Your task to perform on an android device: Open Youtube and go to "Your channel" Image 0: 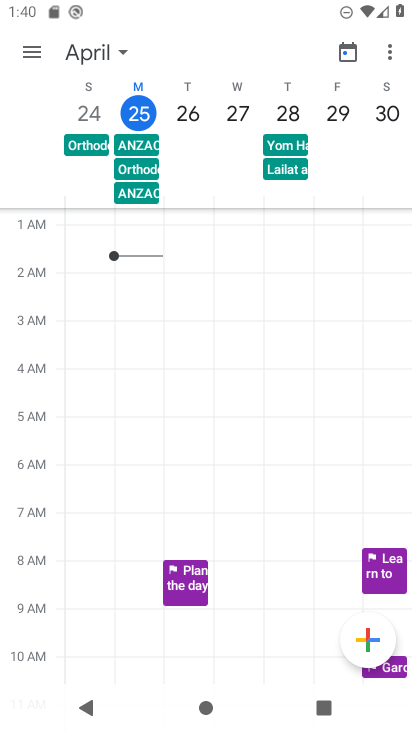
Step 0: press home button
Your task to perform on an android device: Open Youtube and go to "Your channel" Image 1: 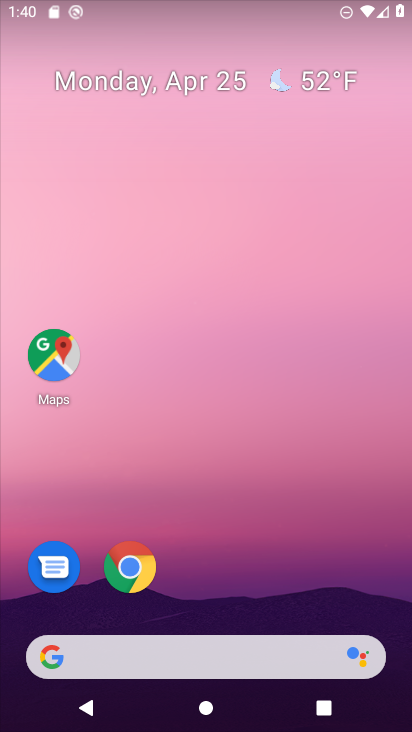
Step 1: drag from (301, 410) to (249, 0)
Your task to perform on an android device: Open Youtube and go to "Your channel" Image 2: 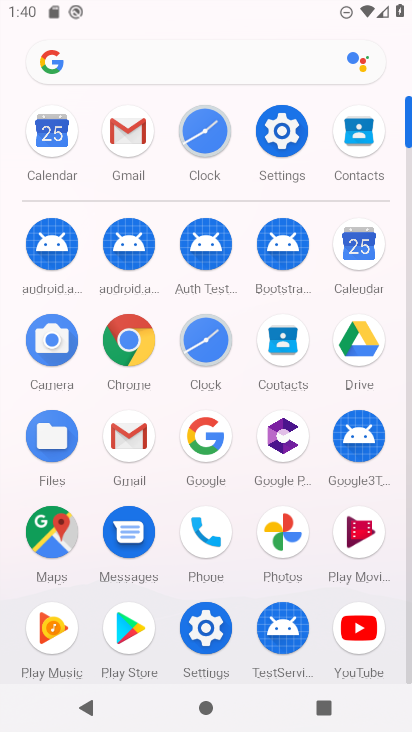
Step 2: click (360, 623)
Your task to perform on an android device: Open Youtube and go to "Your channel" Image 3: 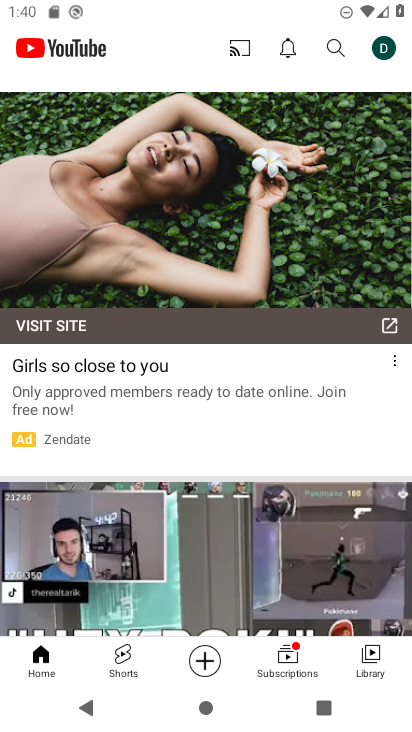
Step 3: click (382, 44)
Your task to perform on an android device: Open Youtube and go to "Your channel" Image 4: 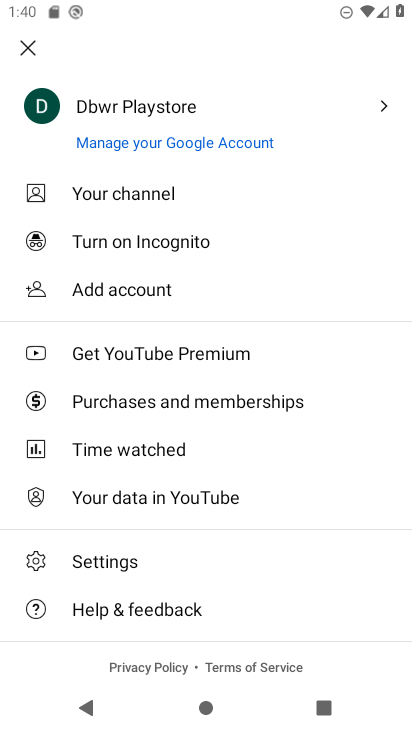
Step 4: click (189, 189)
Your task to perform on an android device: Open Youtube and go to "Your channel" Image 5: 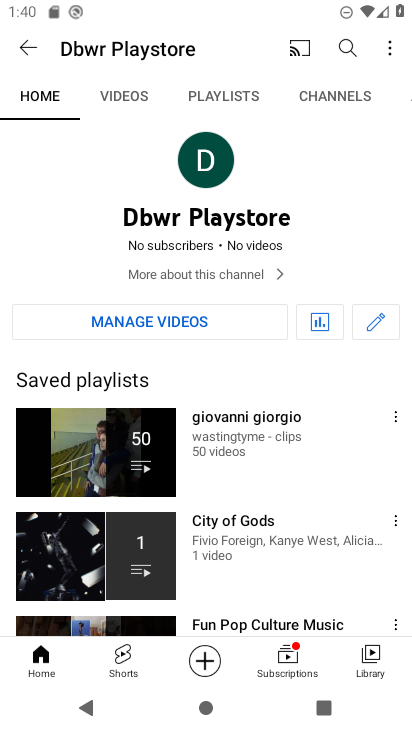
Step 5: task complete